Your task to perform on an android device: Open privacy settings Image 0: 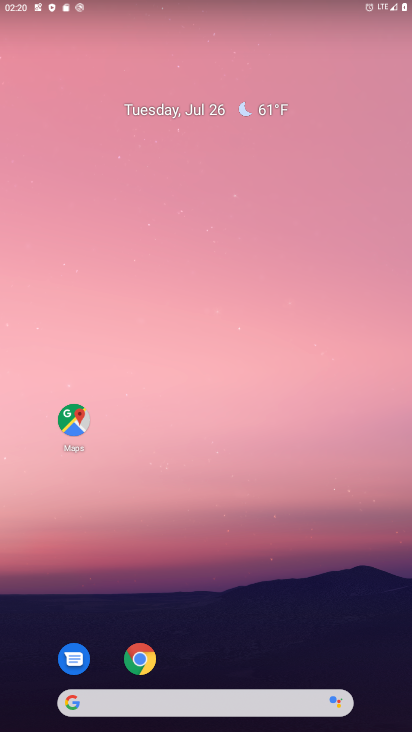
Step 0: drag from (258, 556) to (286, 1)
Your task to perform on an android device: Open privacy settings Image 1: 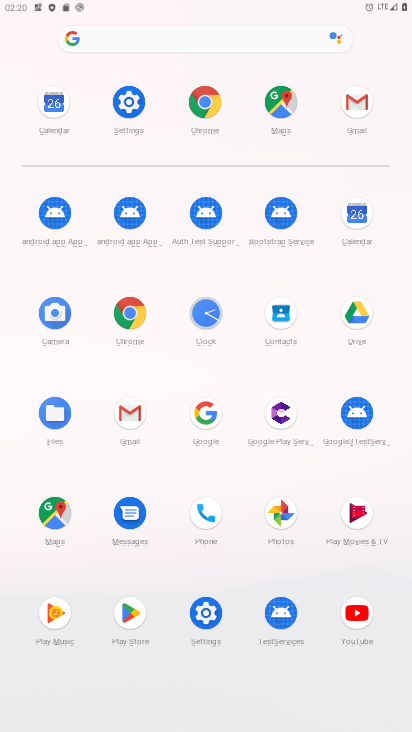
Step 1: click (127, 97)
Your task to perform on an android device: Open privacy settings Image 2: 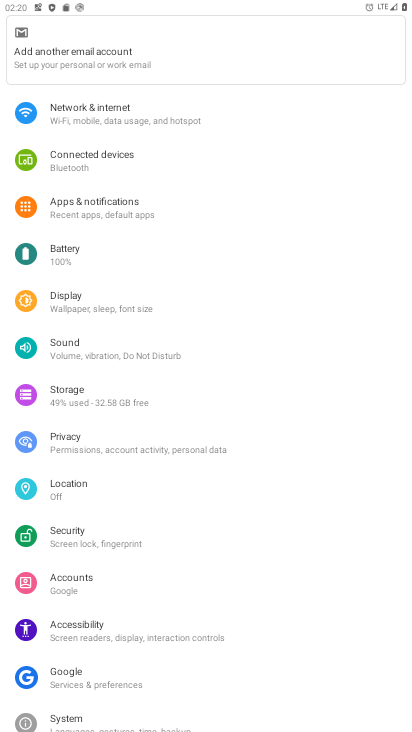
Step 2: drag from (131, 636) to (133, 380)
Your task to perform on an android device: Open privacy settings Image 3: 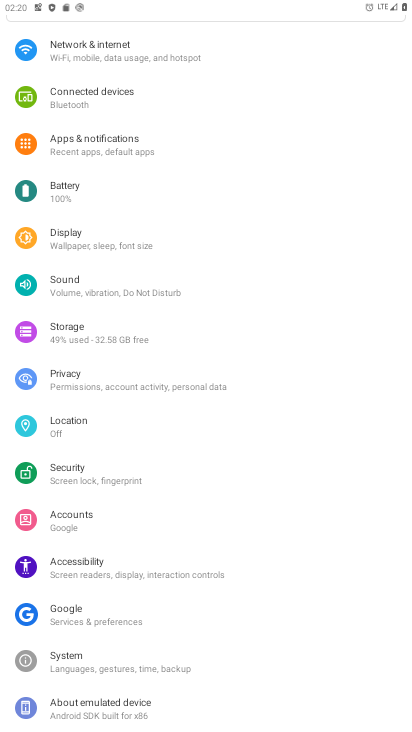
Step 3: click (93, 383)
Your task to perform on an android device: Open privacy settings Image 4: 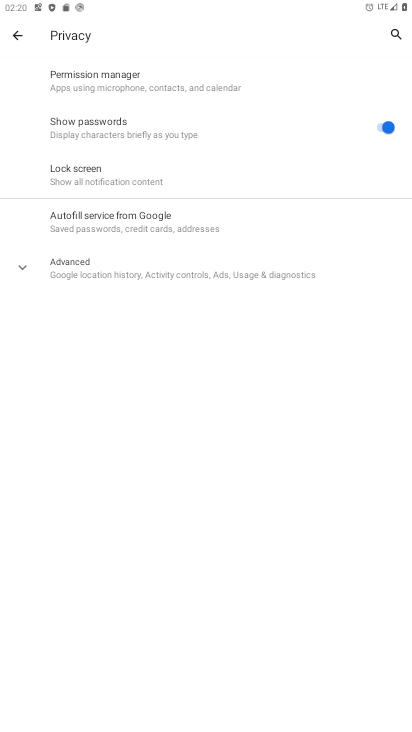
Step 4: task complete